Your task to perform on an android device: find snoozed emails in the gmail app Image 0: 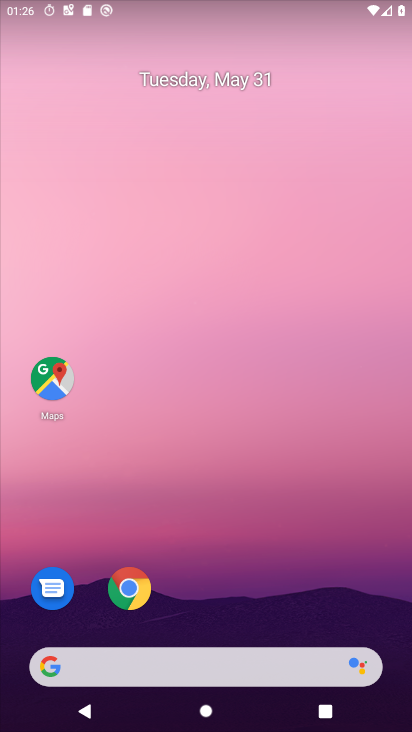
Step 0: drag from (304, 683) to (258, 15)
Your task to perform on an android device: find snoozed emails in the gmail app Image 1: 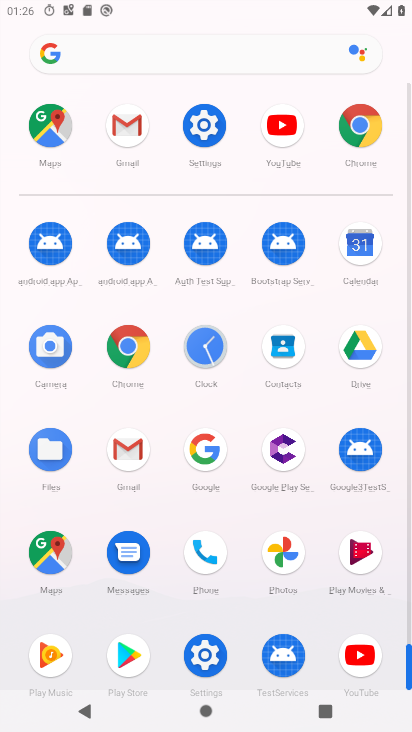
Step 1: click (132, 455)
Your task to perform on an android device: find snoozed emails in the gmail app Image 2: 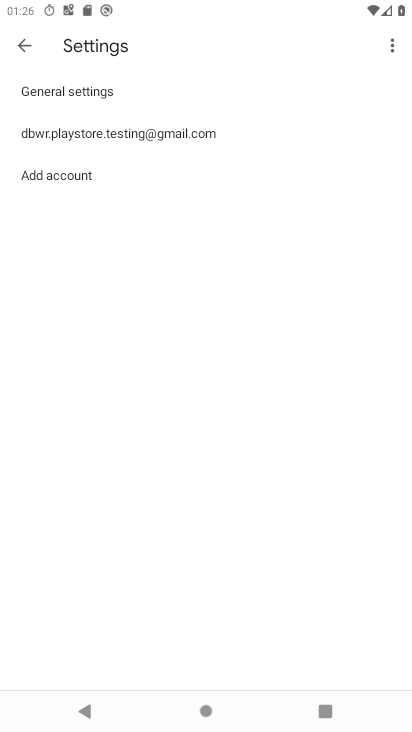
Step 2: press back button
Your task to perform on an android device: find snoozed emails in the gmail app Image 3: 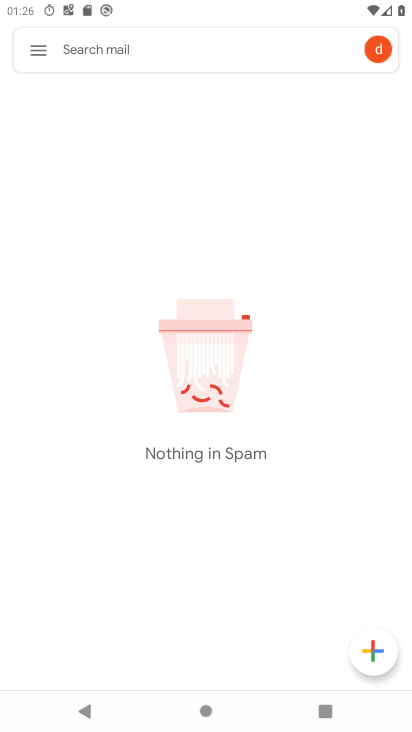
Step 3: click (29, 53)
Your task to perform on an android device: find snoozed emails in the gmail app Image 4: 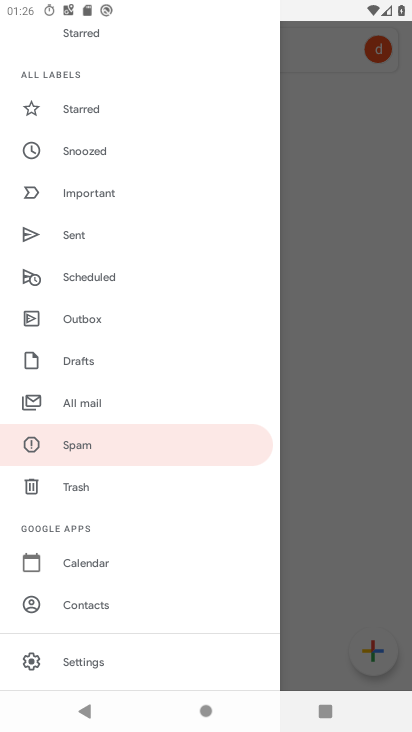
Step 4: click (91, 153)
Your task to perform on an android device: find snoozed emails in the gmail app Image 5: 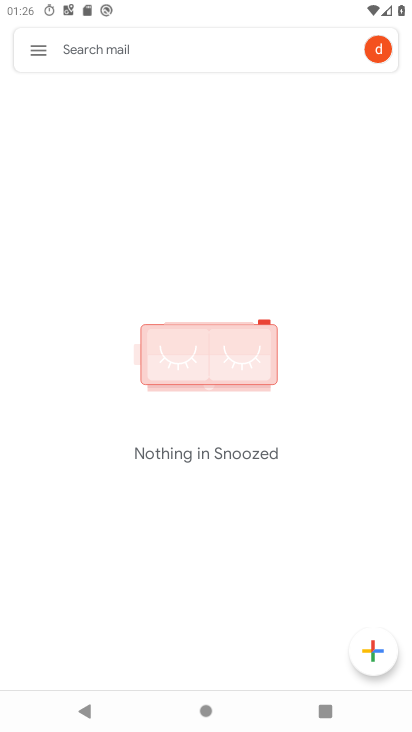
Step 5: task complete